Your task to perform on an android device: Open notification settings Image 0: 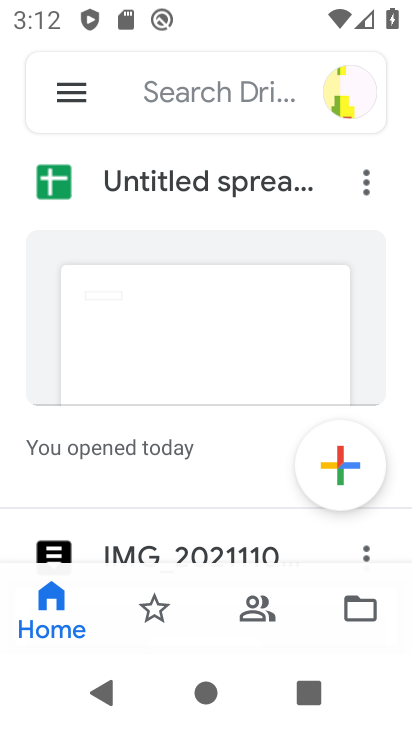
Step 0: press home button
Your task to perform on an android device: Open notification settings Image 1: 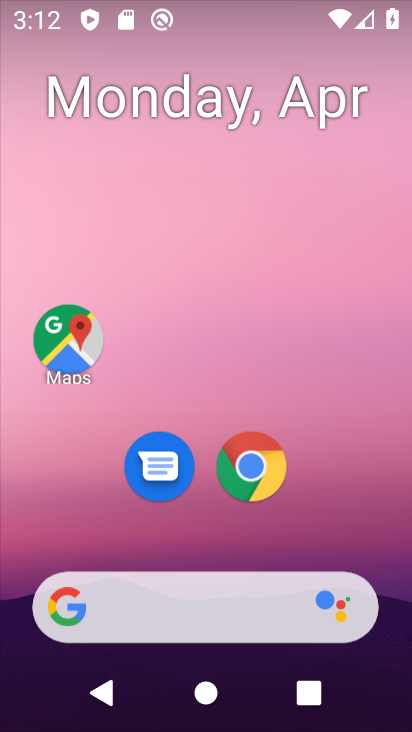
Step 1: drag from (367, 523) to (289, 40)
Your task to perform on an android device: Open notification settings Image 2: 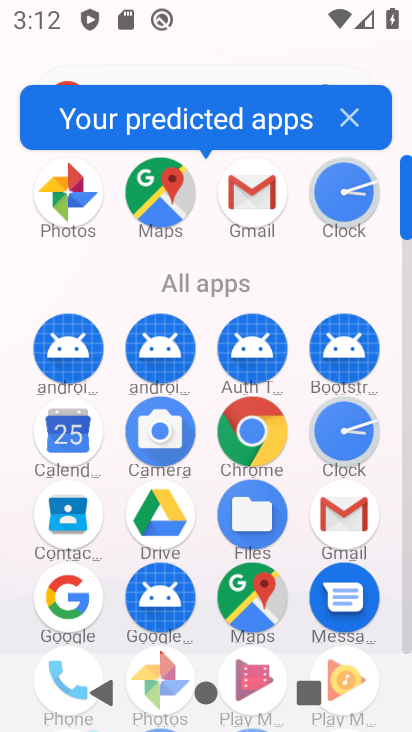
Step 2: click (410, 154)
Your task to perform on an android device: Open notification settings Image 3: 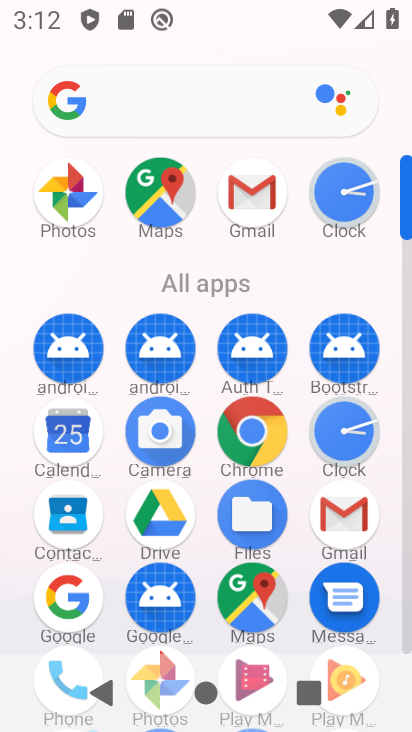
Step 3: click (403, 649)
Your task to perform on an android device: Open notification settings Image 4: 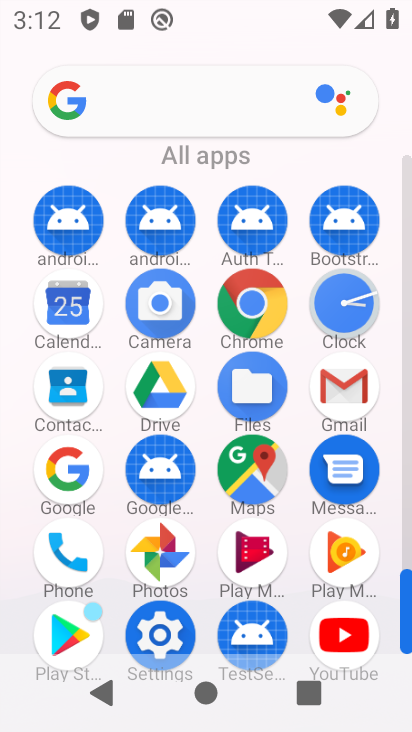
Step 4: click (166, 631)
Your task to perform on an android device: Open notification settings Image 5: 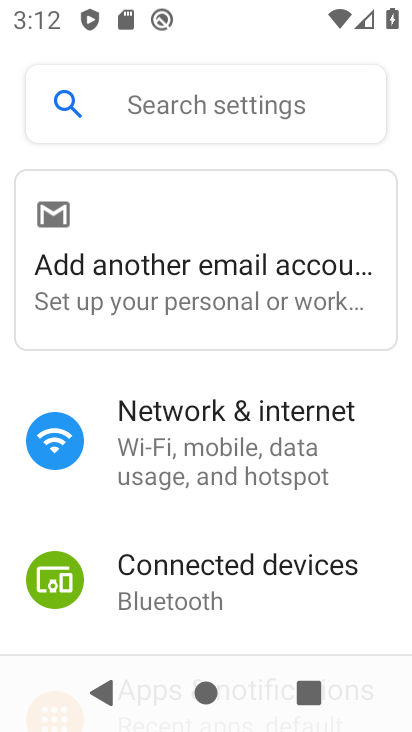
Step 5: drag from (290, 552) to (323, 190)
Your task to perform on an android device: Open notification settings Image 6: 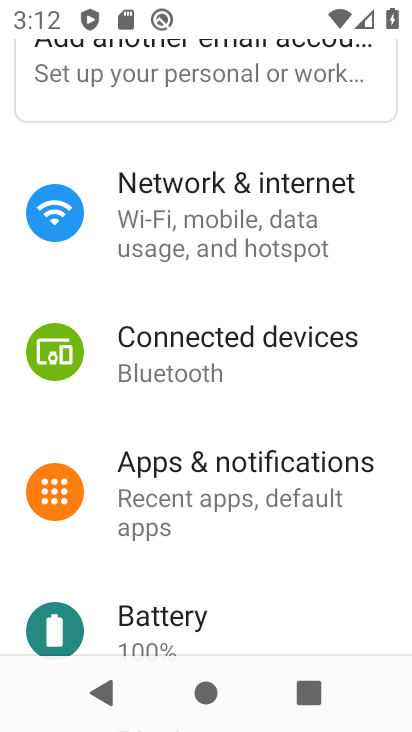
Step 6: drag from (321, 536) to (285, 370)
Your task to perform on an android device: Open notification settings Image 7: 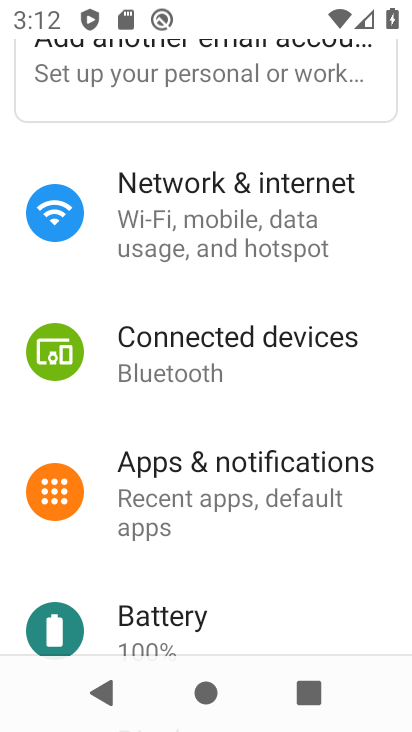
Step 7: click (210, 465)
Your task to perform on an android device: Open notification settings Image 8: 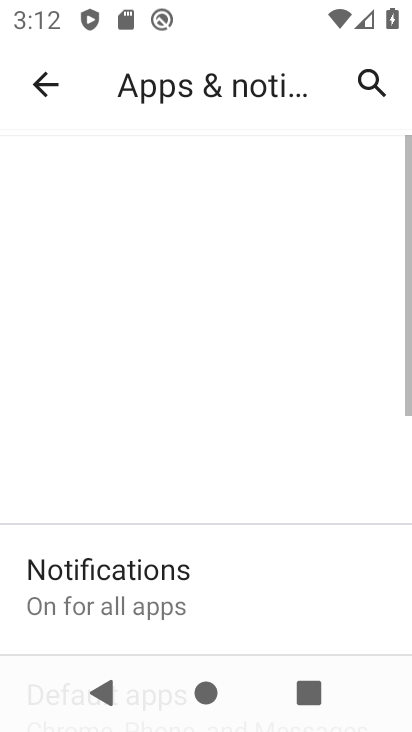
Step 8: click (186, 468)
Your task to perform on an android device: Open notification settings Image 9: 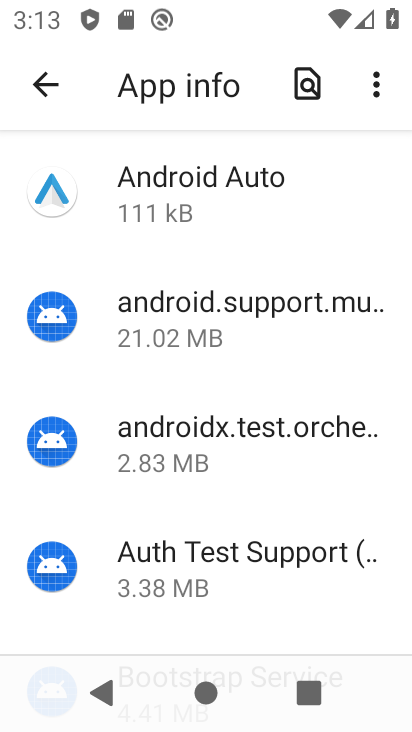
Step 9: click (46, 94)
Your task to perform on an android device: Open notification settings Image 10: 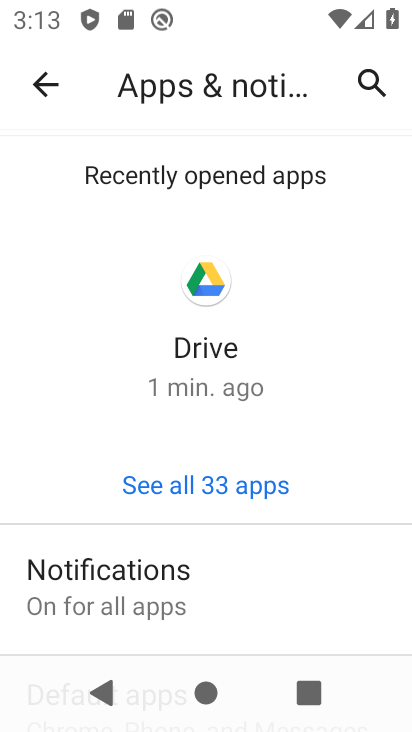
Step 10: click (40, 74)
Your task to perform on an android device: Open notification settings Image 11: 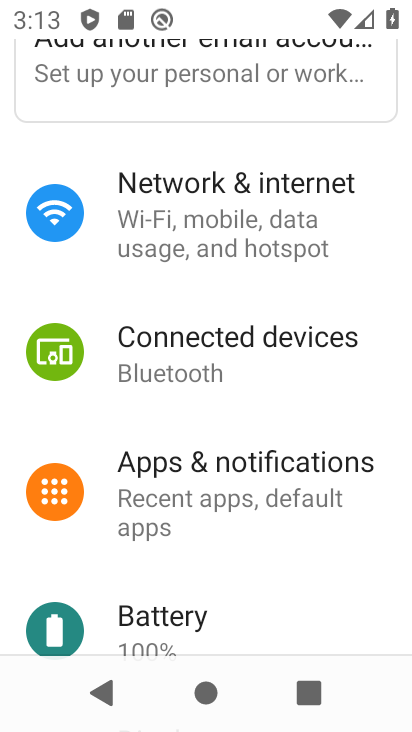
Step 11: click (262, 477)
Your task to perform on an android device: Open notification settings Image 12: 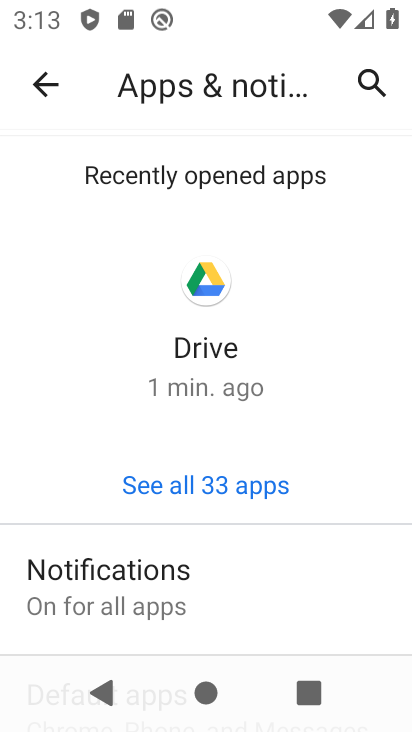
Step 12: task complete